Your task to perform on an android device: Is it going to rain today? Image 0: 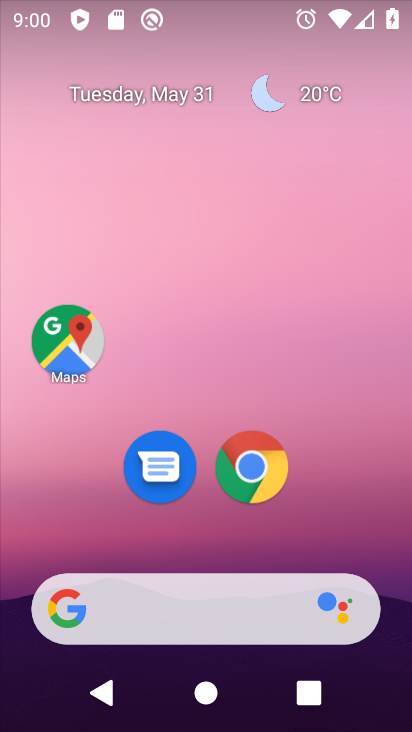
Step 0: drag from (201, 528) to (305, 27)
Your task to perform on an android device: Is it going to rain today? Image 1: 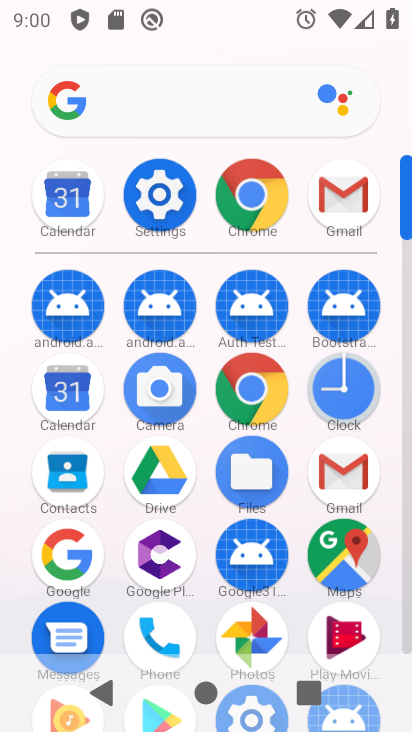
Step 1: click (169, 118)
Your task to perform on an android device: Is it going to rain today? Image 2: 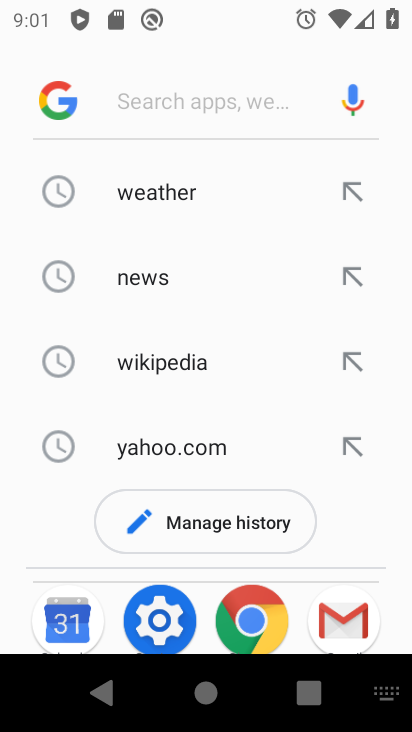
Step 2: type "rain today?"
Your task to perform on an android device: Is it going to rain today? Image 3: 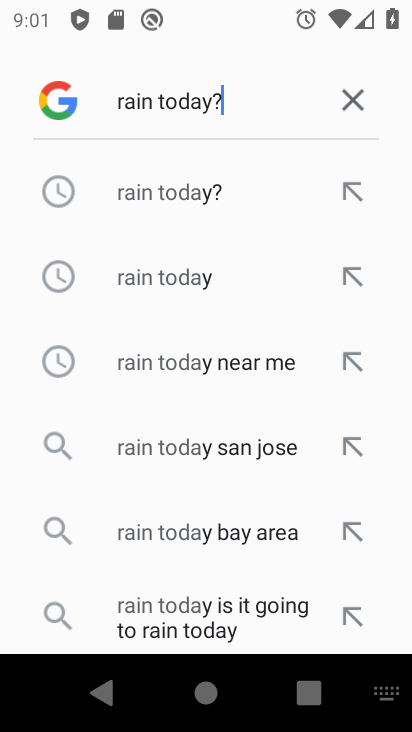
Step 3: type ""
Your task to perform on an android device: Is it going to rain today? Image 4: 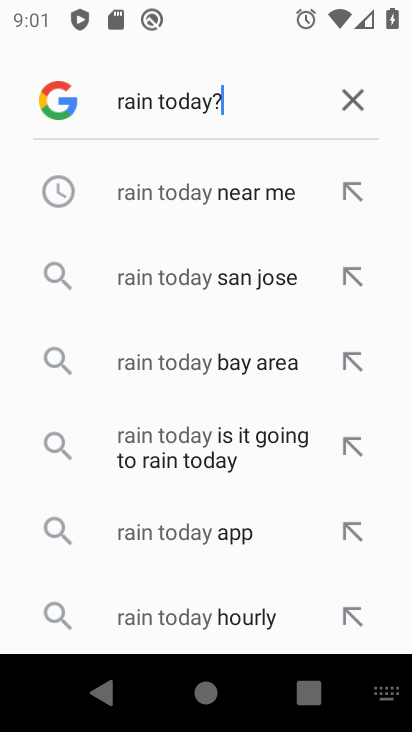
Step 4: click (168, 196)
Your task to perform on an android device: Is it going to rain today? Image 5: 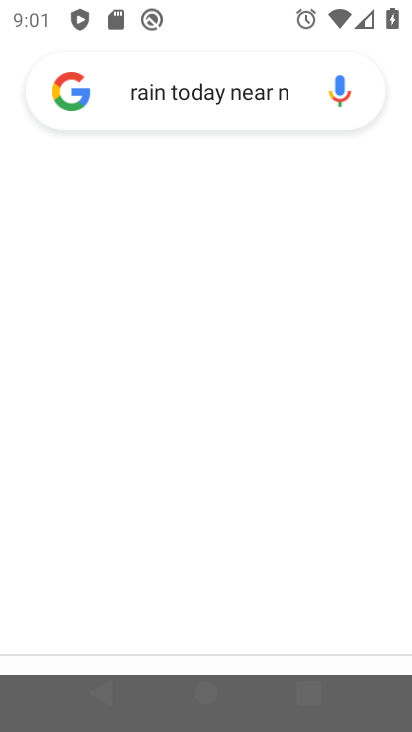
Step 5: task complete